Your task to perform on an android device: open app "TextNow: Call + Text Unlimited" (install if not already installed), go to login, and select forgot password Image 0: 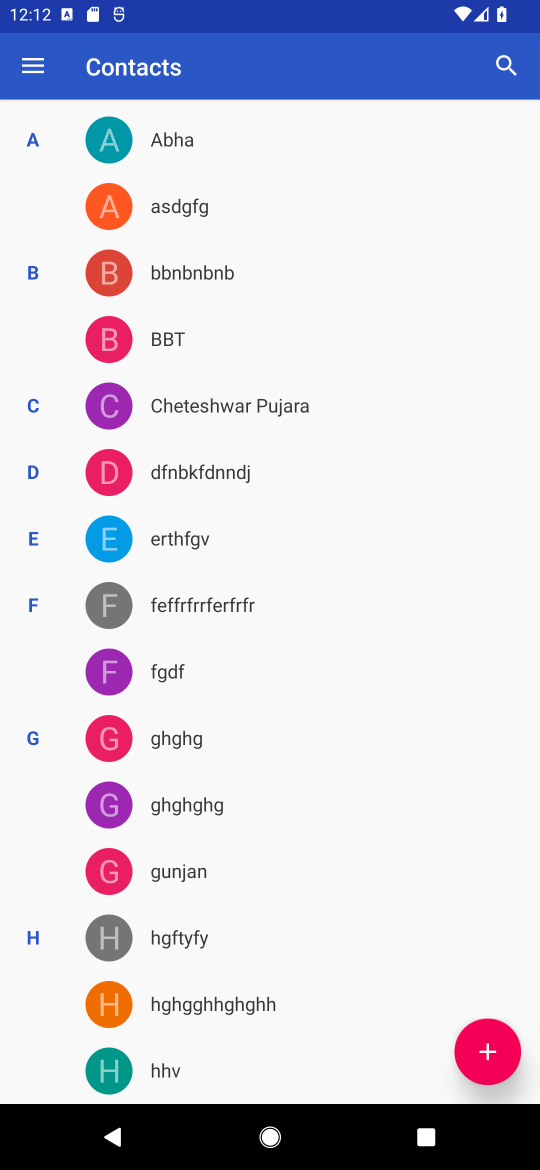
Step 0: press home button
Your task to perform on an android device: open app "TextNow: Call + Text Unlimited" (install if not already installed), go to login, and select forgot password Image 1: 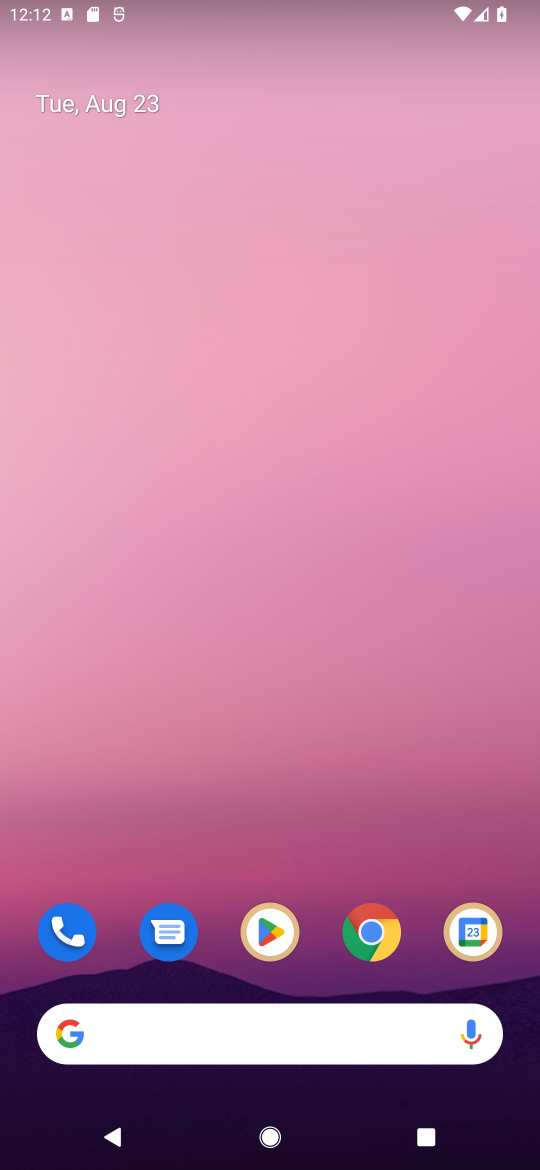
Step 1: click (284, 928)
Your task to perform on an android device: open app "TextNow: Call + Text Unlimited" (install if not already installed), go to login, and select forgot password Image 2: 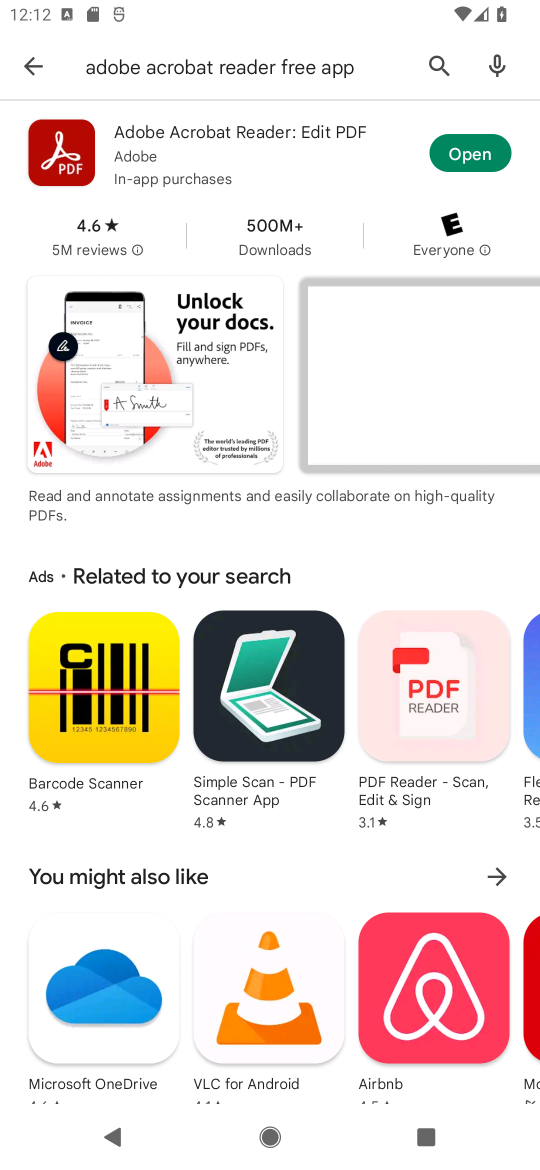
Step 2: click (439, 67)
Your task to perform on an android device: open app "TextNow: Call + Text Unlimited" (install if not already installed), go to login, and select forgot password Image 3: 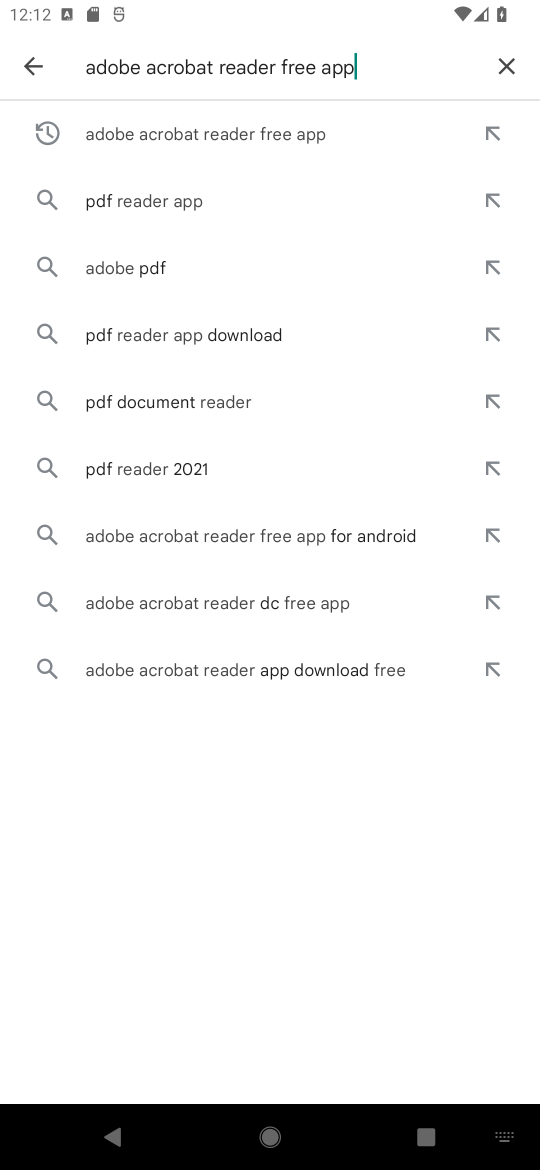
Step 3: click (510, 61)
Your task to perform on an android device: open app "TextNow: Call + Text Unlimited" (install if not already installed), go to login, and select forgot password Image 4: 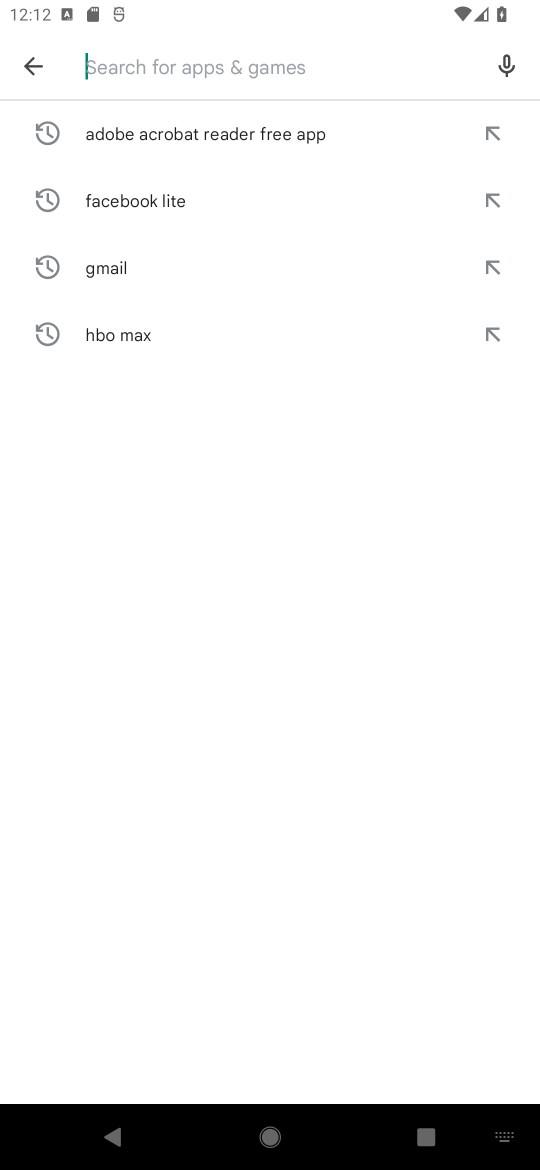
Step 4: click (214, 56)
Your task to perform on an android device: open app "TextNow: Call + Text Unlimited" (install if not already installed), go to login, and select forgot password Image 5: 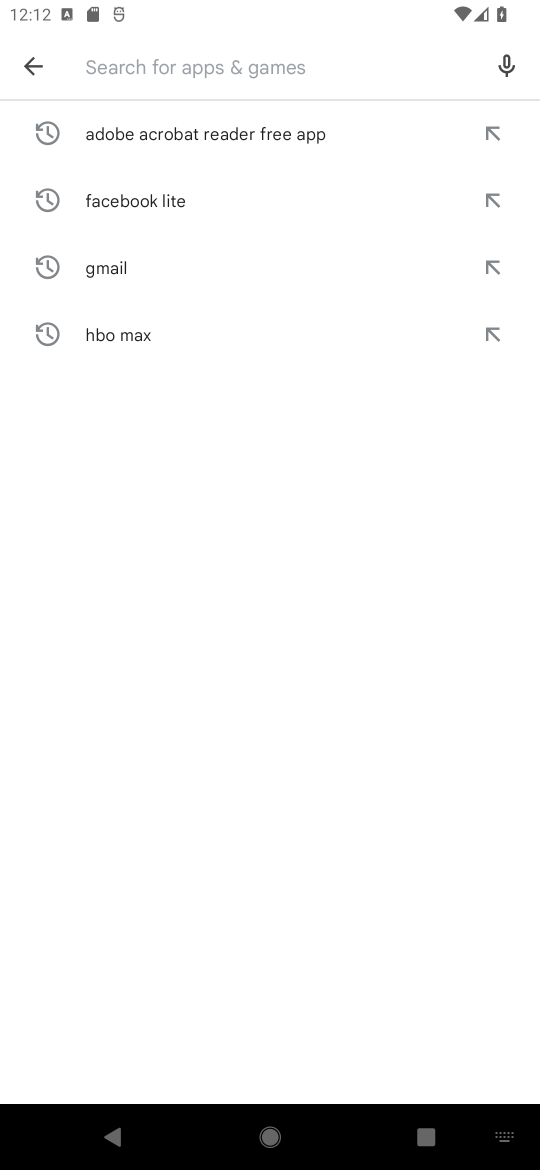
Step 5: type "TextNow: Call"
Your task to perform on an android device: open app "TextNow: Call + Text Unlimited" (install if not already installed), go to login, and select forgot password Image 6: 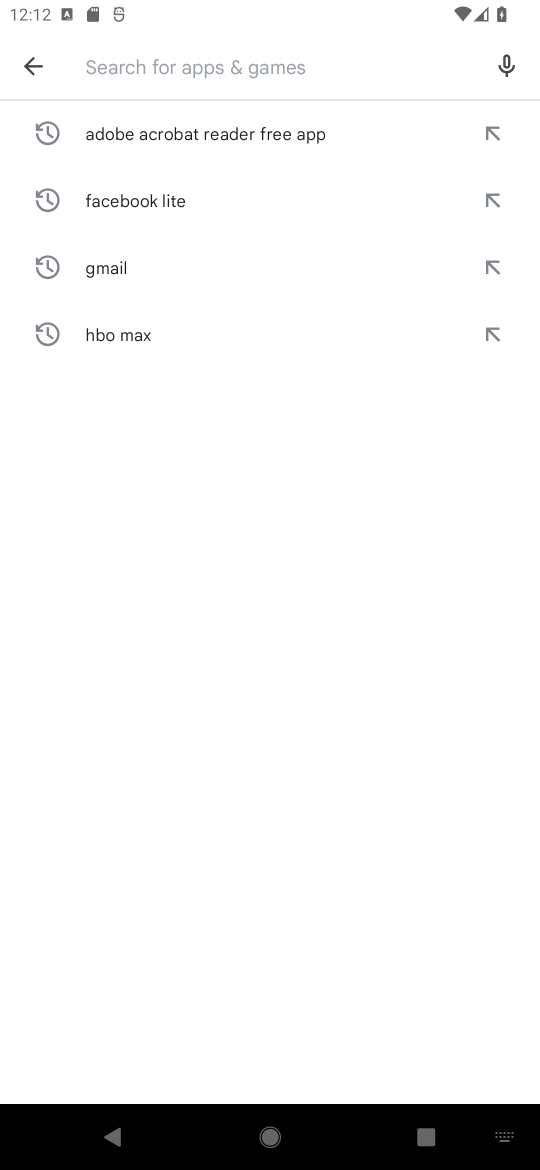
Step 6: click (369, 729)
Your task to perform on an android device: open app "TextNow: Call + Text Unlimited" (install if not already installed), go to login, and select forgot password Image 7: 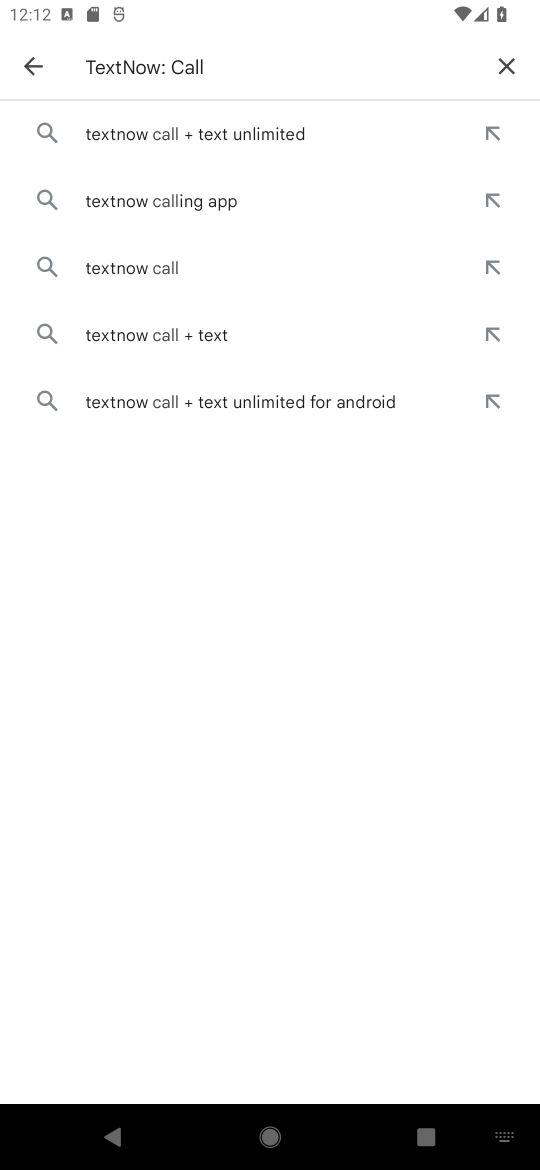
Step 7: click (149, 126)
Your task to perform on an android device: open app "TextNow: Call + Text Unlimited" (install if not already installed), go to login, and select forgot password Image 8: 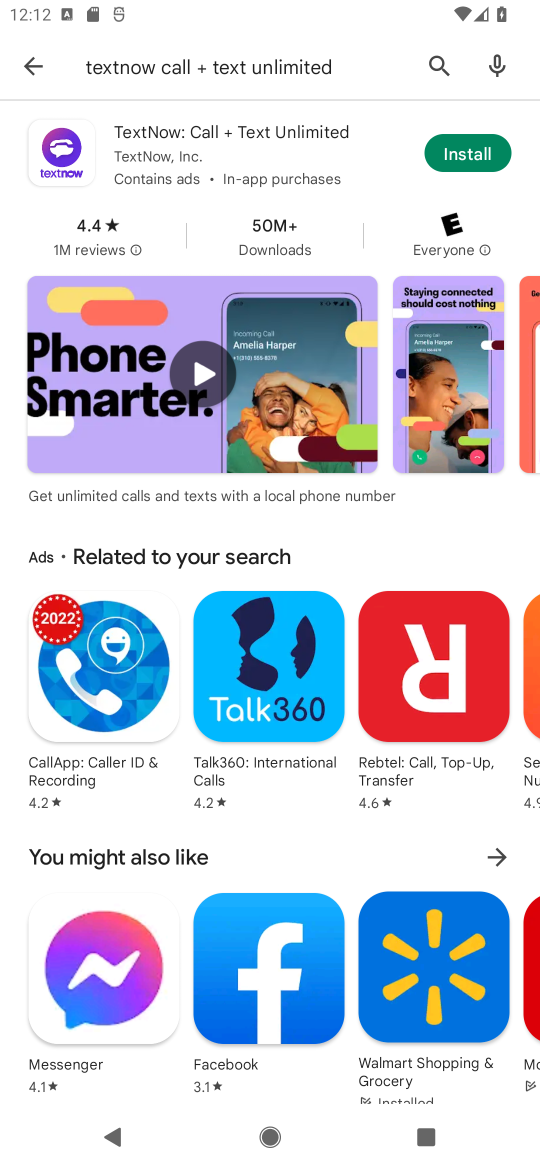
Step 8: click (465, 154)
Your task to perform on an android device: open app "TextNow: Call + Text Unlimited" (install if not already installed), go to login, and select forgot password Image 9: 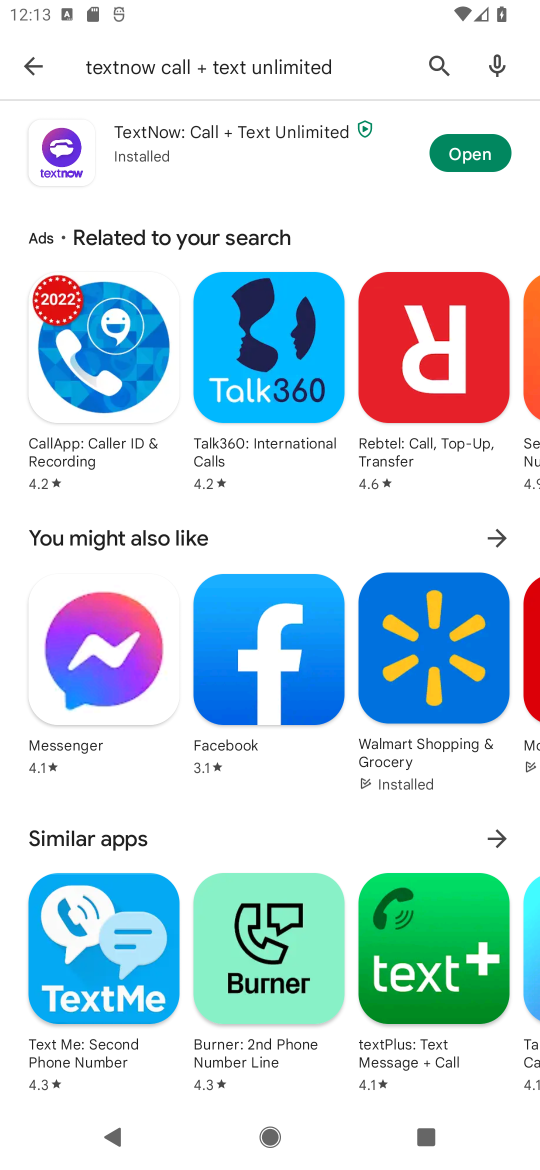
Step 9: click (463, 156)
Your task to perform on an android device: open app "TextNow: Call + Text Unlimited" (install if not already installed), go to login, and select forgot password Image 10: 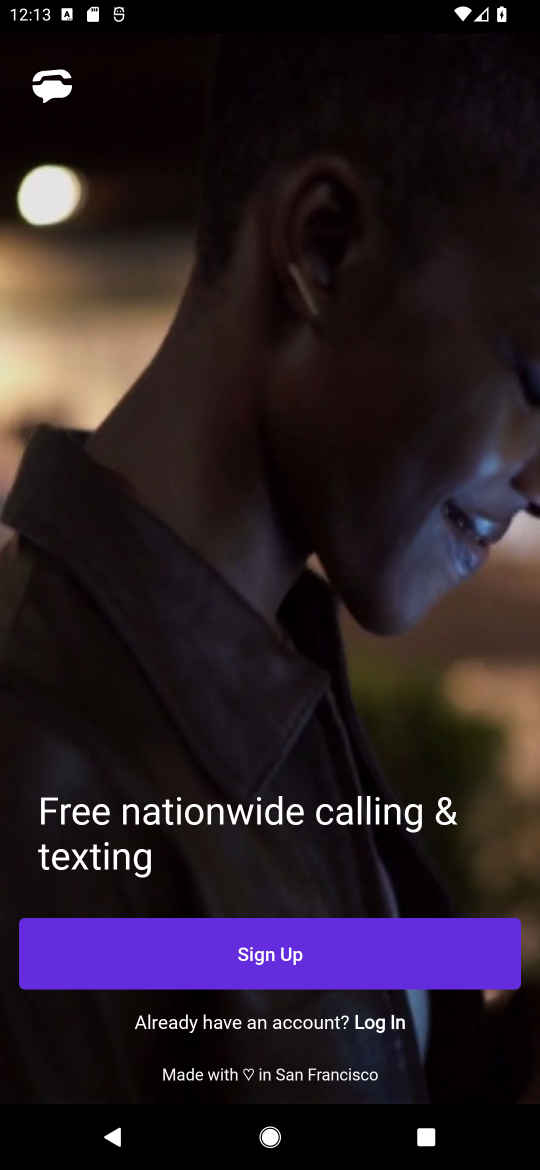
Step 10: click (384, 1012)
Your task to perform on an android device: open app "TextNow: Call + Text Unlimited" (install if not already installed), go to login, and select forgot password Image 11: 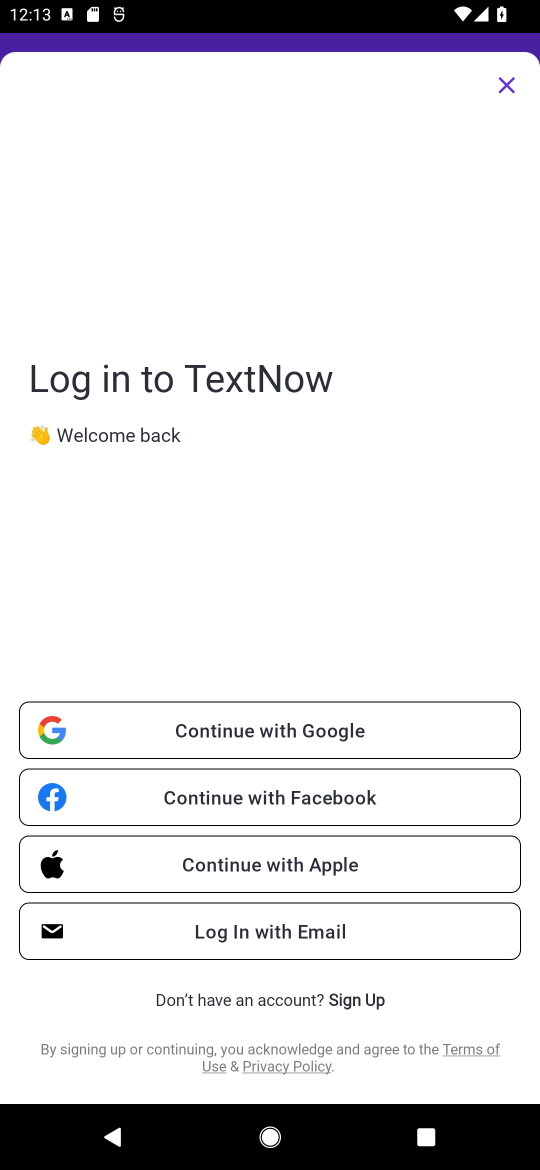
Step 11: click (298, 932)
Your task to perform on an android device: open app "TextNow: Call + Text Unlimited" (install if not already installed), go to login, and select forgot password Image 12: 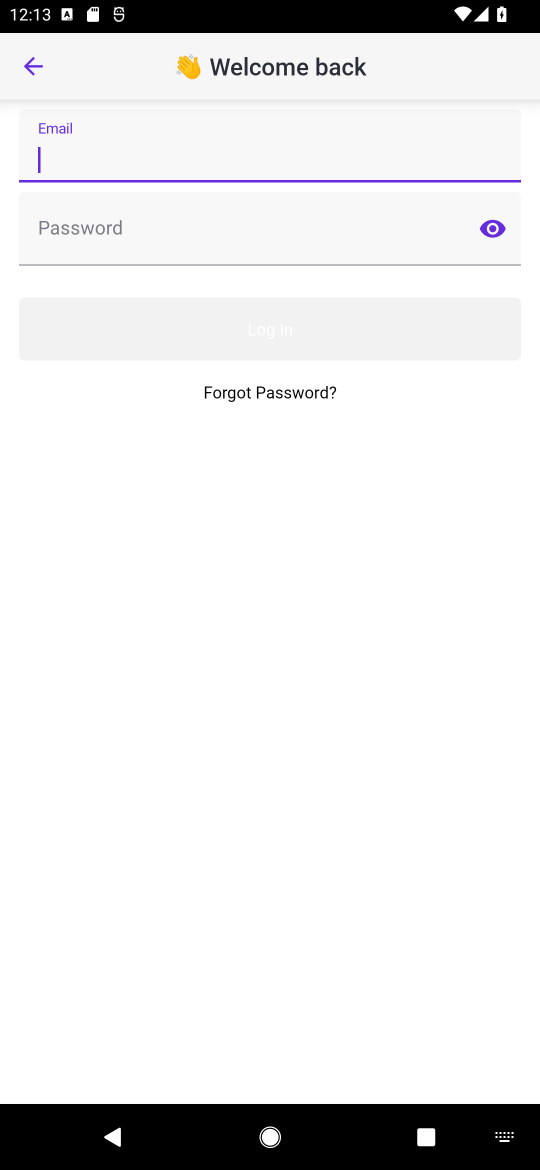
Step 12: click (258, 389)
Your task to perform on an android device: open app "TextNow: Call + Text Unlimited" (install if not already installed), go to login, and select forgot password Image 13: 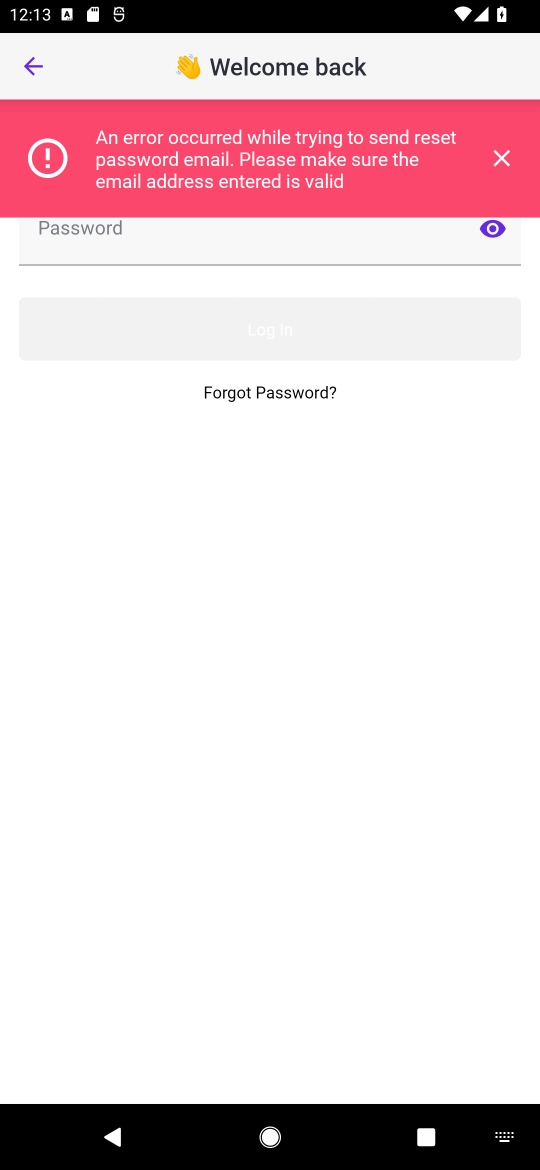
Step 13: task complete